Your task to perform on an android device: What's the weather going to be this weekend? Image 0: 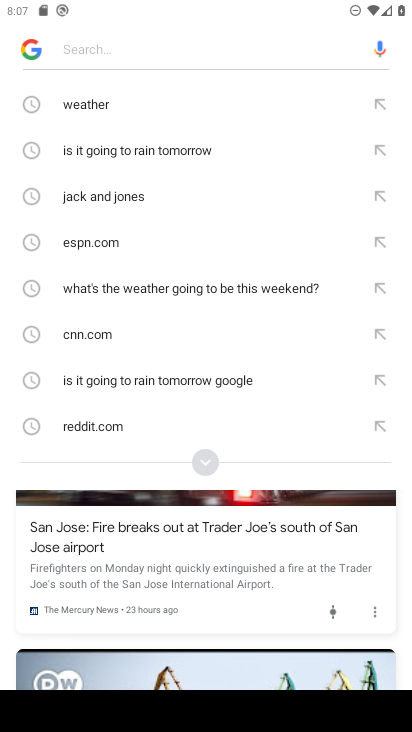
Step 0: click (187, 286)
Your task to perform on an android device: What's the weather going to be this weekend? Image 1: 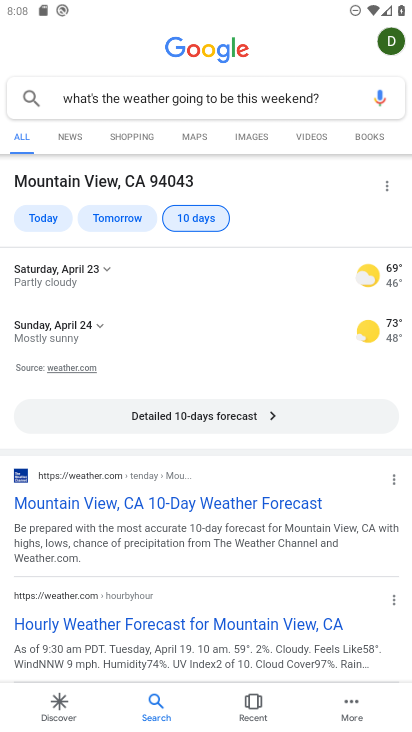
Step 1: task complete